Your task to perform on an android device: Open Yahoo.com Image 0: 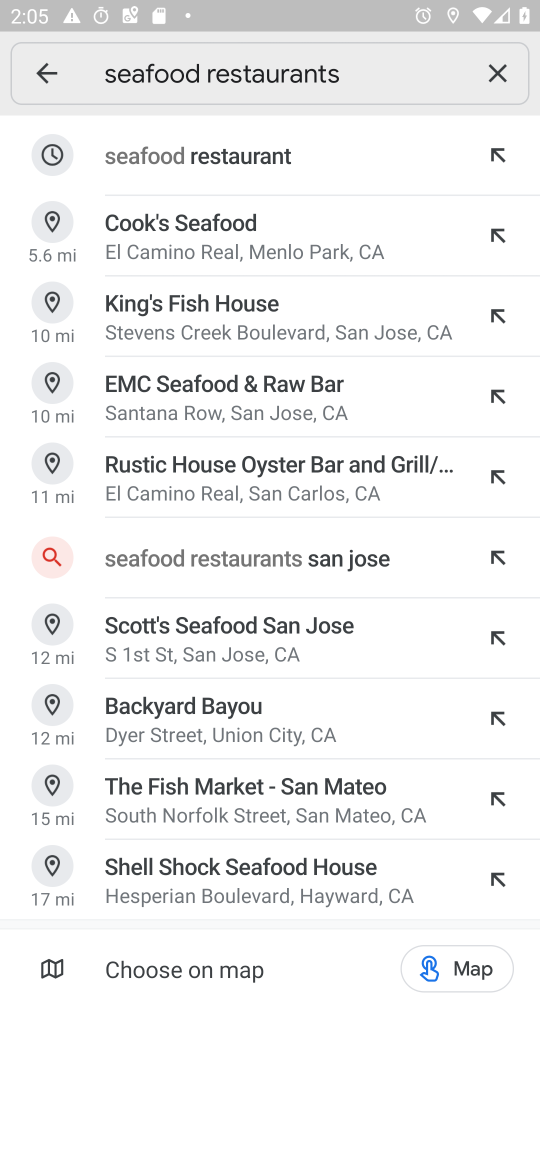
Step 0: press home button
Your task to perform on an android device: Open Yahoo.com Image 1: 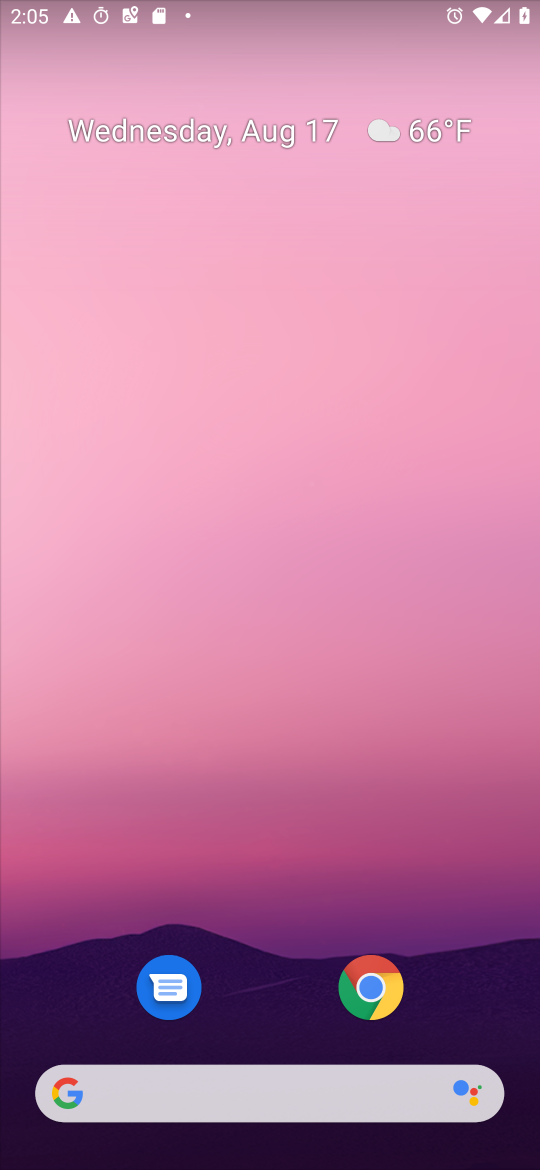
Step 1: click (151, 1084)
Your task to perform on an android device: Open Yahoo.com Image 2: 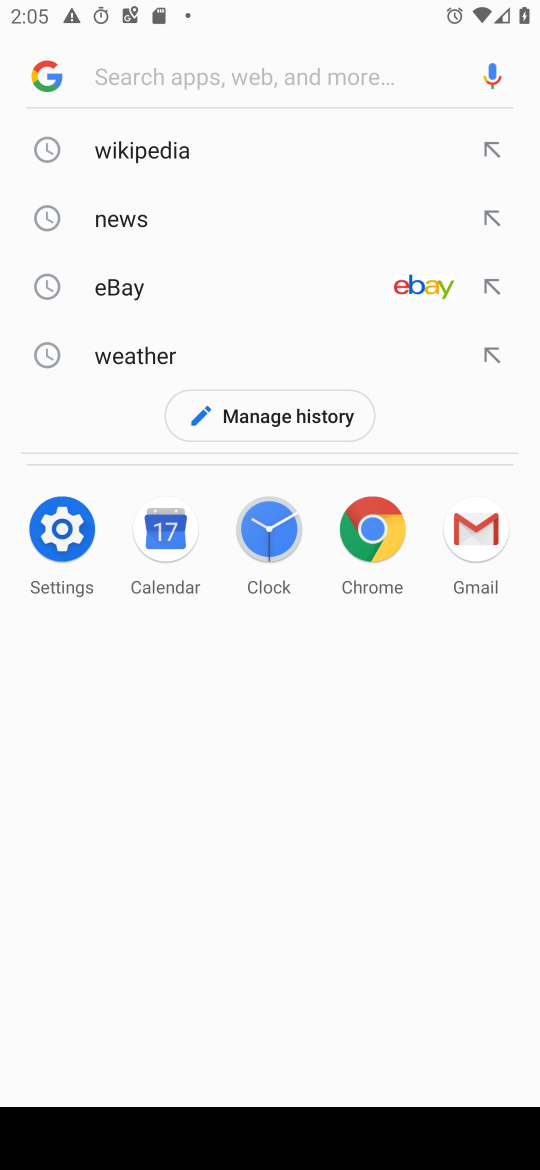
Step 2: type "Yahoo.com"
Your task to perform on an android device: Open Yahoo.com Image 3: 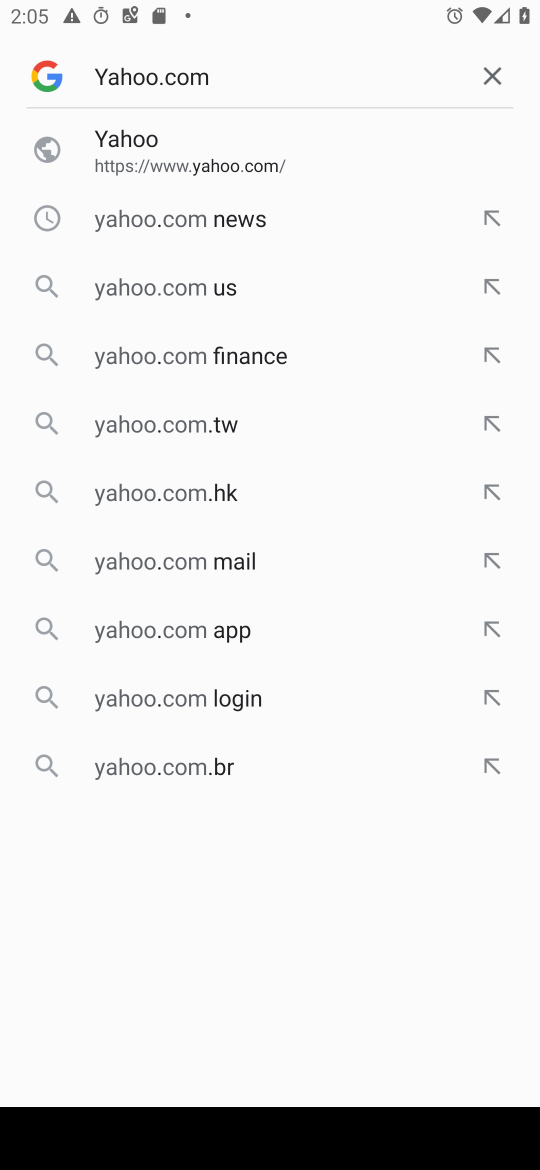
Step 3: click (153, 158)
Your task to perform on an android device: Open Yahoo.com Image 4: 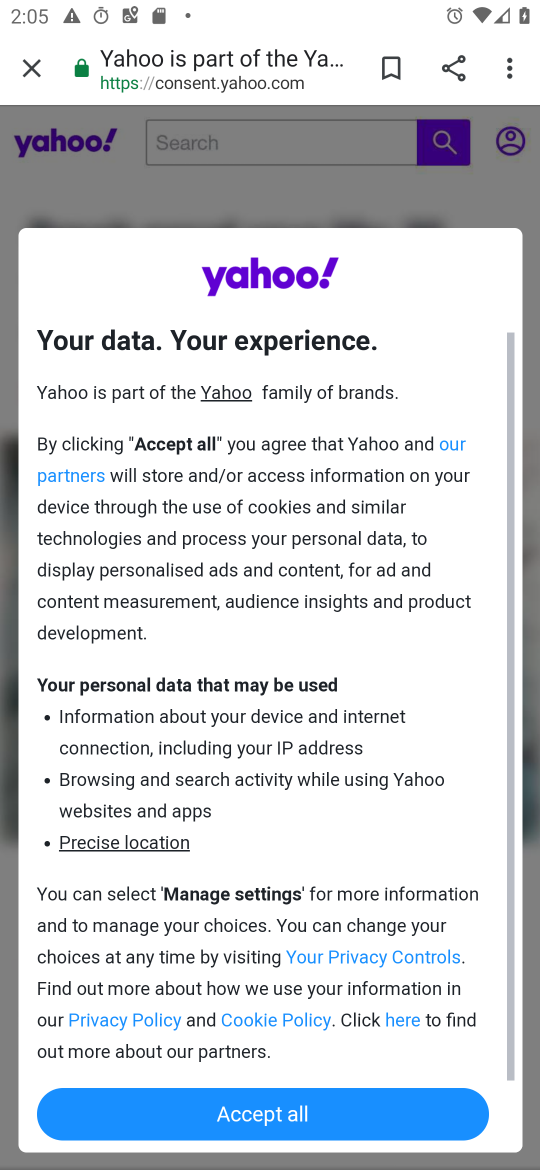
Step 4: task complete